Your task to perform on an android device: install app "Facebook Lite" Image 0: 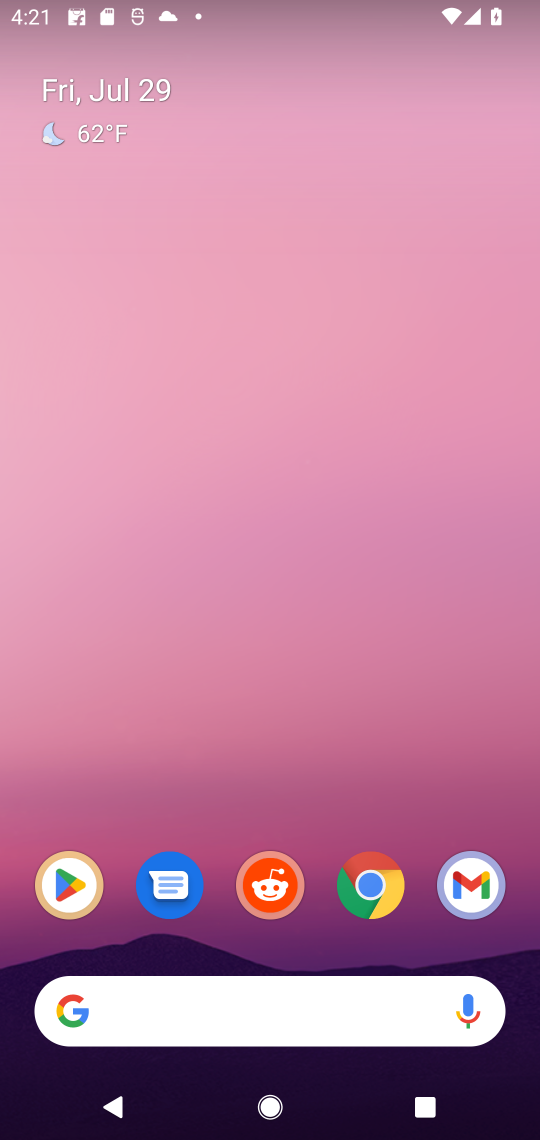
Step 0: click (85, 895)
Your task to perform on an android device: install app "Facebook Lite" Image 1: 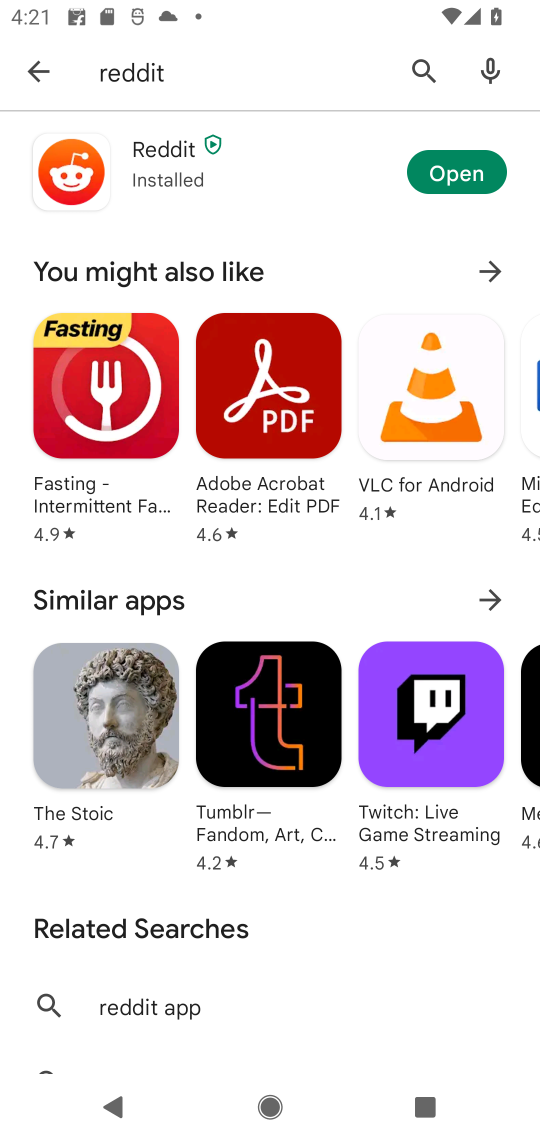
Step 1: click (423, 61)
Your task to perform on an android device: install app "Facebook Lite" Image 2: 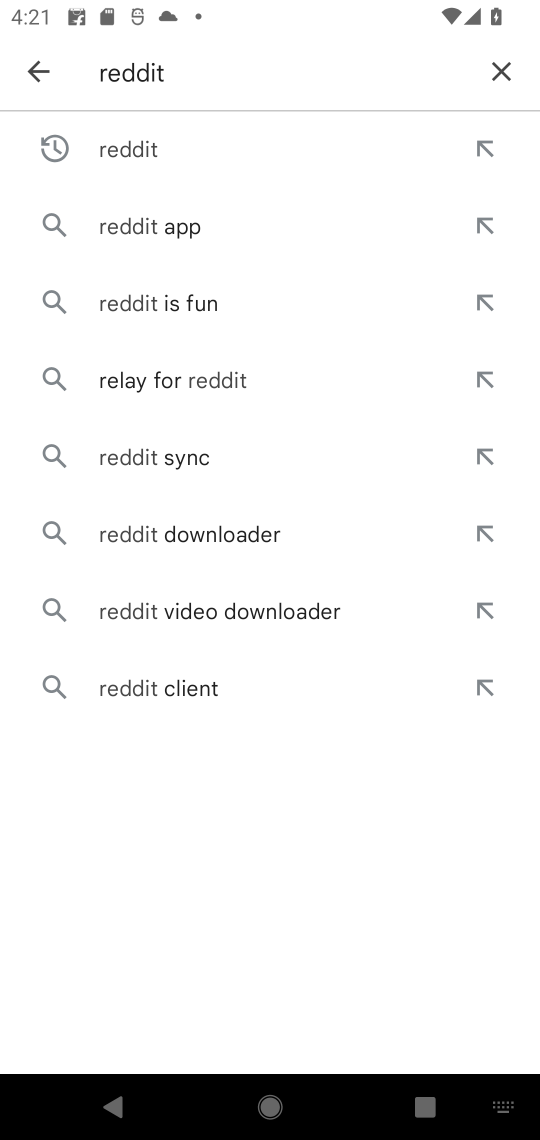
Step 2: click (499, 73)
Your task to perform on an android device: install app "Facebook Lite" Image 3: 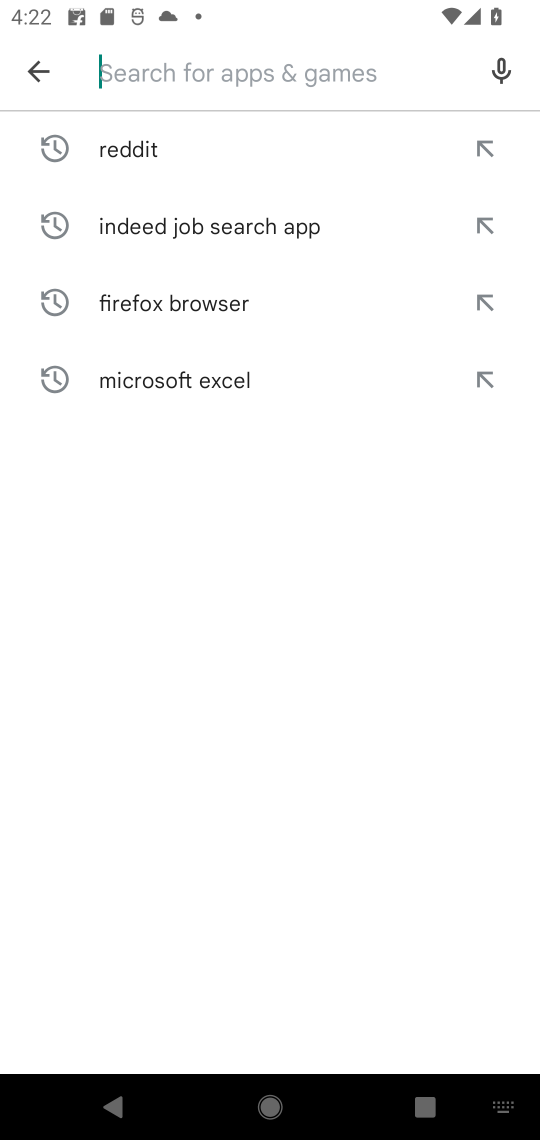
Step 3: type "Facebook Lite"
Your task to perform on an android device: install app "Facebook Lite" Image 4: 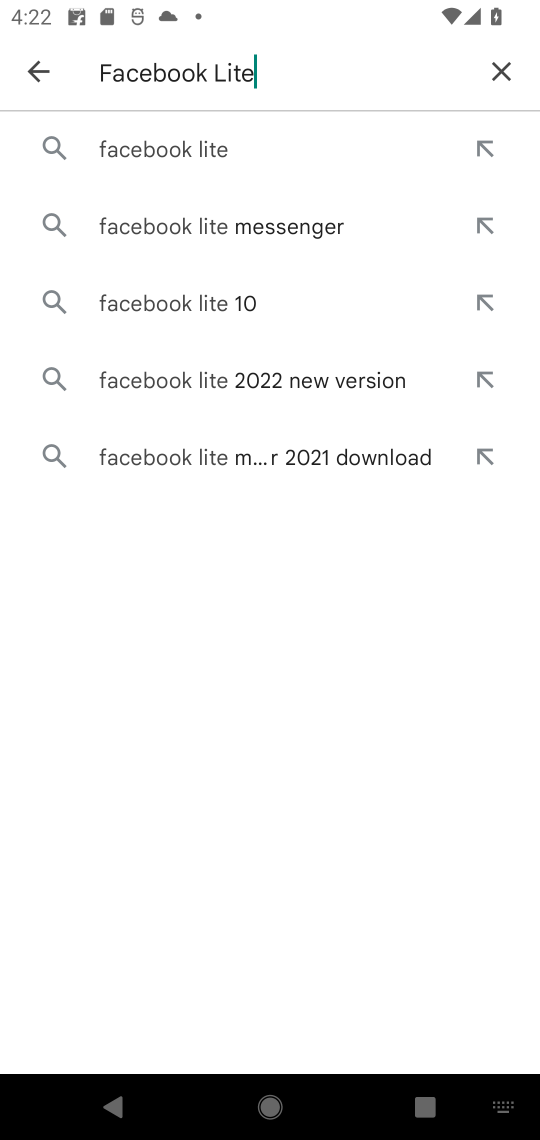
Step 4: click (267, 154)
Your task to perform on an android device: install app "Facebook Lite" Image 5: 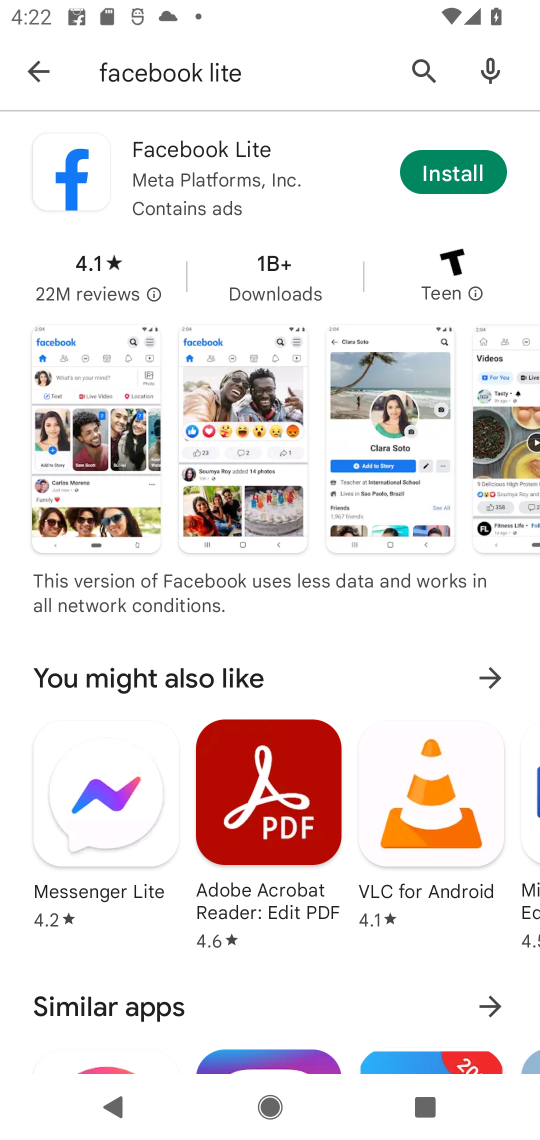
Step 5: click (455, 166)
Your task to perform on an android device: install app "Facebook Lite" Image 6: 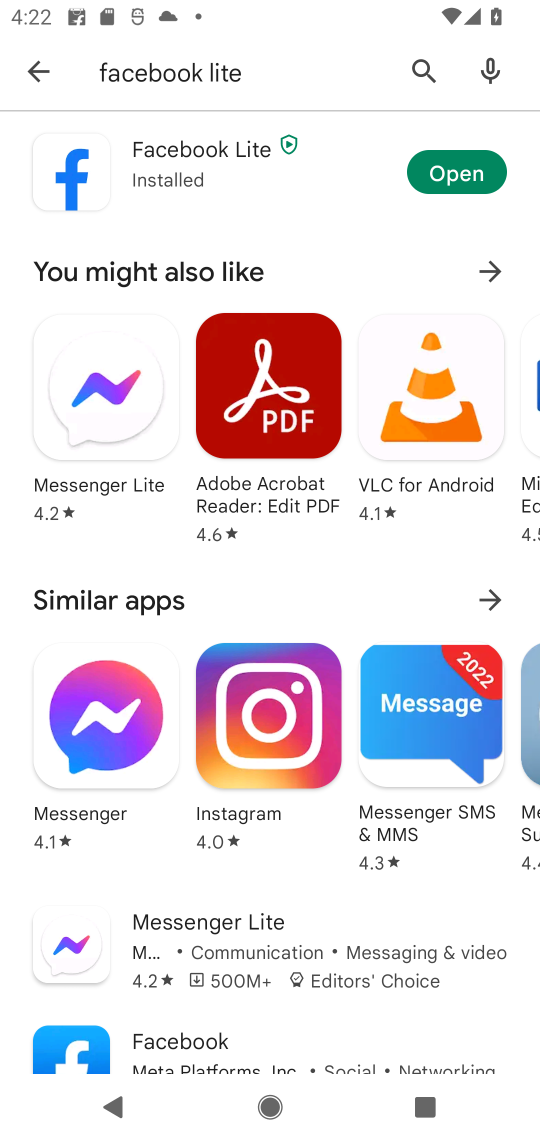
Step 6: task complete